Your task to perform on an android device: What's on my calendar tomorrow? Image 0: 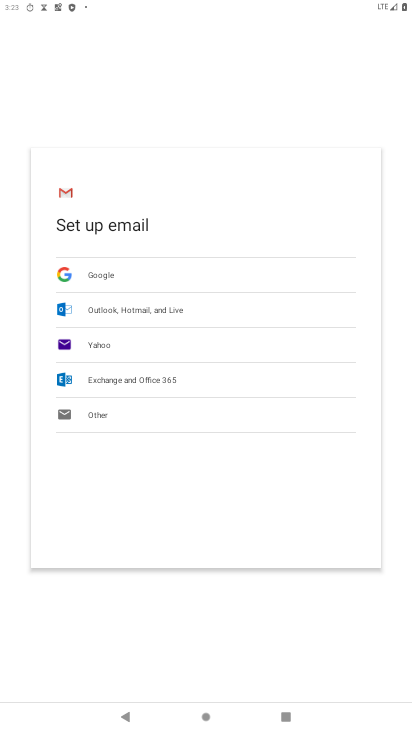
Step 0: press home button
Your task to perform on an android device: What's on my calendar tomorrow? Image 1: 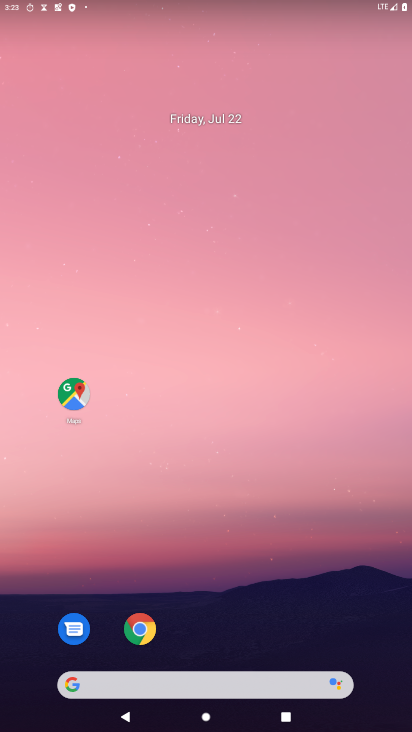
Step 1: drag from (288, 661) to (265, 4)
Your task to perform on an android device: What's on my calendar tomorrow? Image 2: 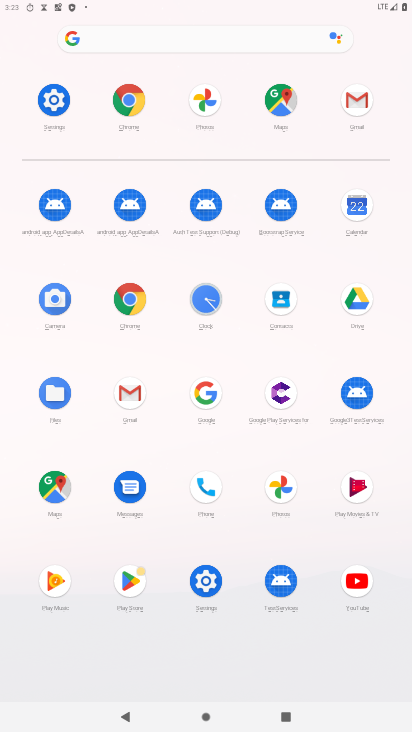
Step 2: click (356, 207)
Your task to perform on an android device: What's on my calendar tomorrow? Image 3: 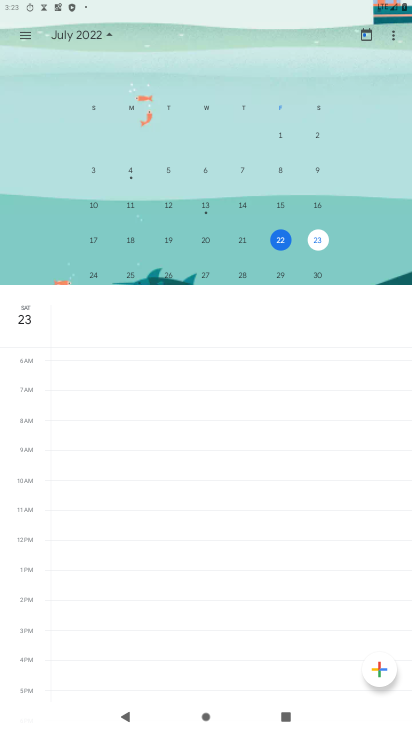
Step 3: click (356, 207)
Your task to perform on an android device: What's on my calendar tomorrow? Image 4: 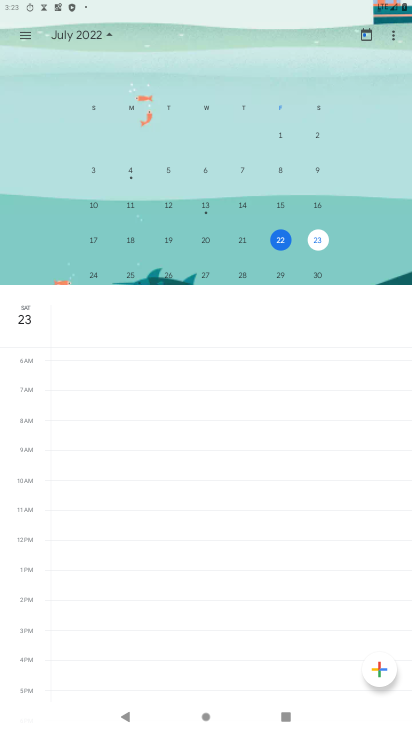
Step 4: task complete